Your task to perform on an android device: Go to notification settings Image 0: 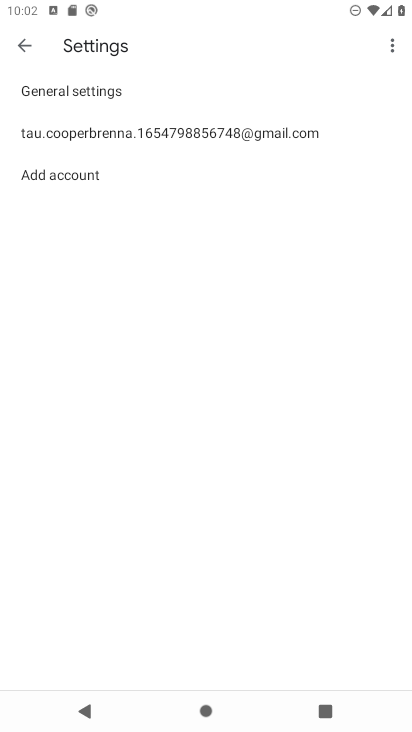
Step 0: press home button
Your task to perform on an android device: Go to notification settings Image 1: 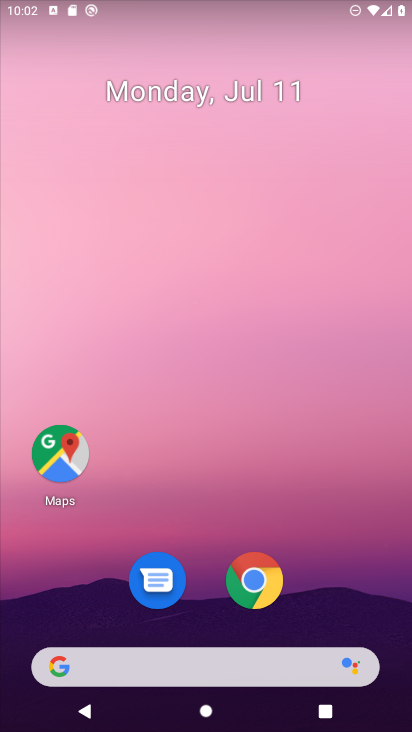
Step 1: drag from (325, 530) to (308, 23)
Your task to perform on an android device: Go to notification settings Image 2: 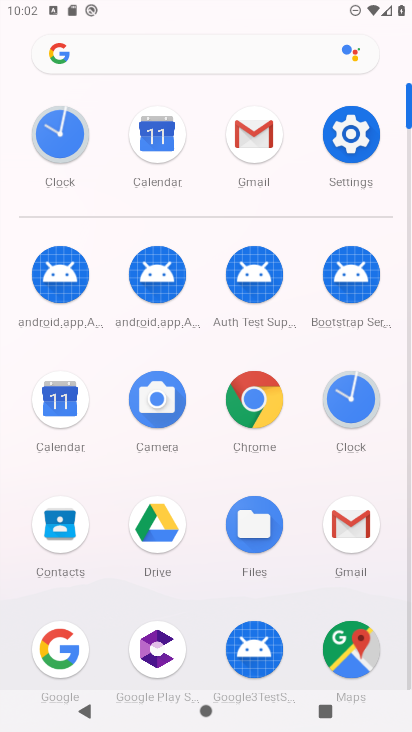
Step 2: click (351, 126)
Your task to perform on an android device: Go to notification settings Image 3: 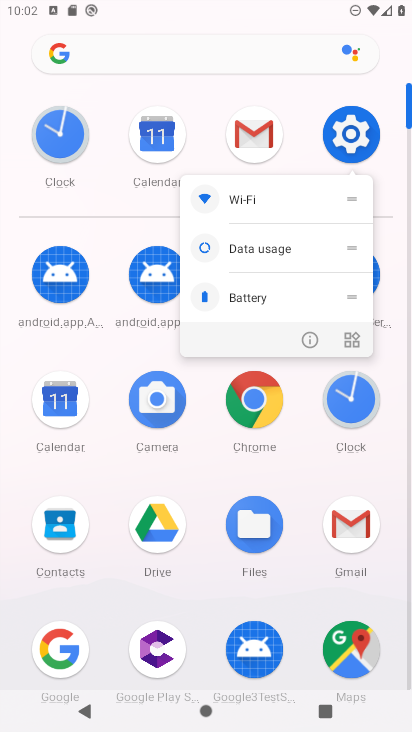
Step 3: click (359, 117)
Your task to perform on an android device: Go to notification settings Image 4: 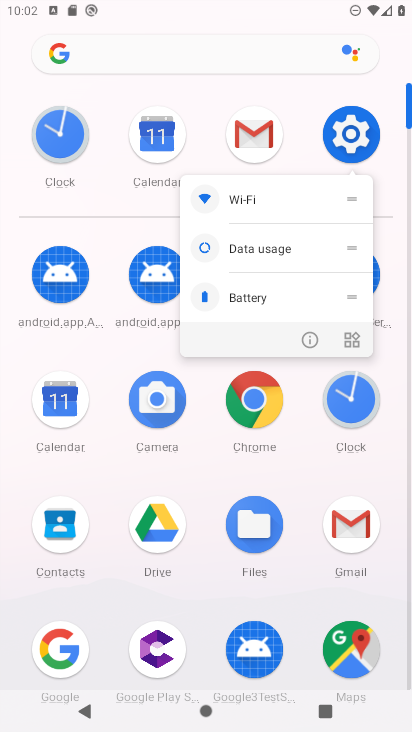
Step 4: click (356, 125)
Your task to perform on an android device: Go to notification settings Image 5: 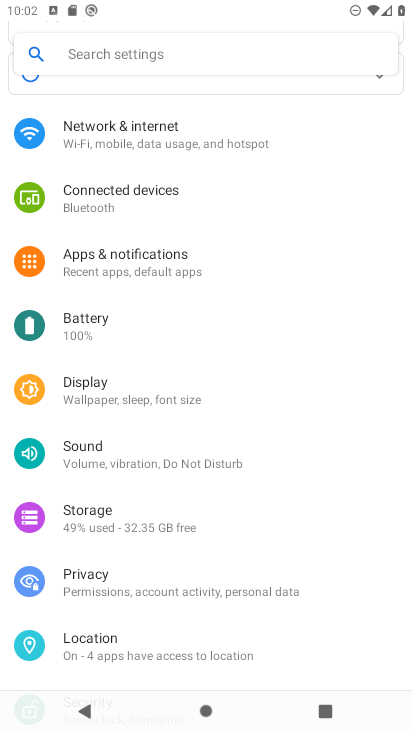
Step 5: click (175, 260)
Your task to perform on an android device: Go to notification settings Image 6: 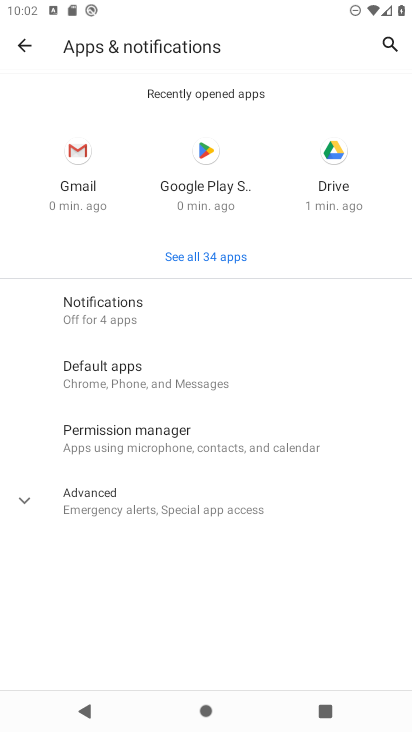
Step 6: click (135, 313)
Your task to perform on an android device: Go to notification settings Image 7: 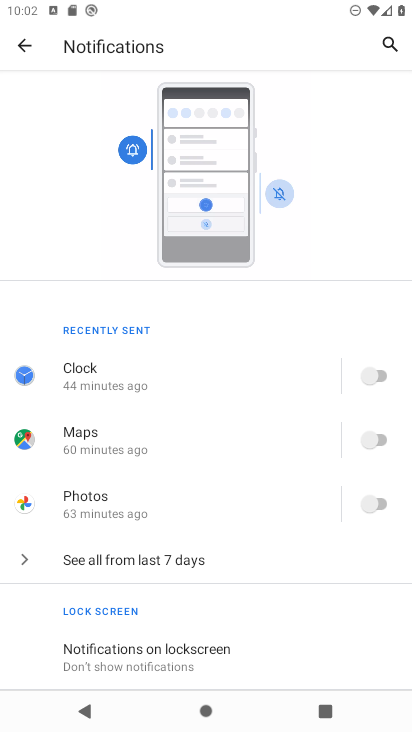
Step 7: task complete